Your task to perform on an android device: Go to accessibility settings Image 0: 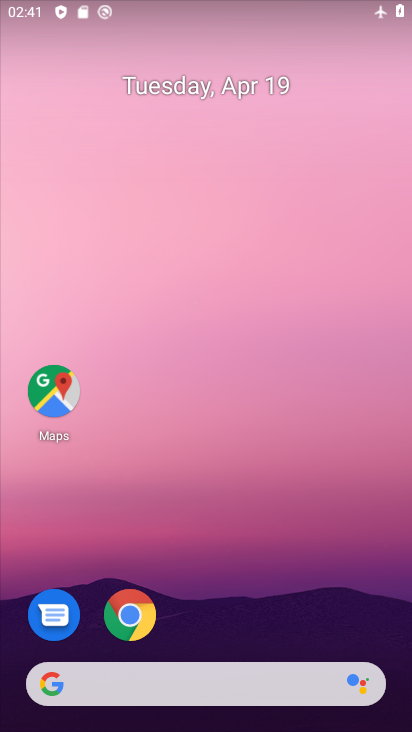
Step 0: drag from (237, 459) to (246, 235)
Your task to perform on an android device: Go to accessibility settings Image 1: 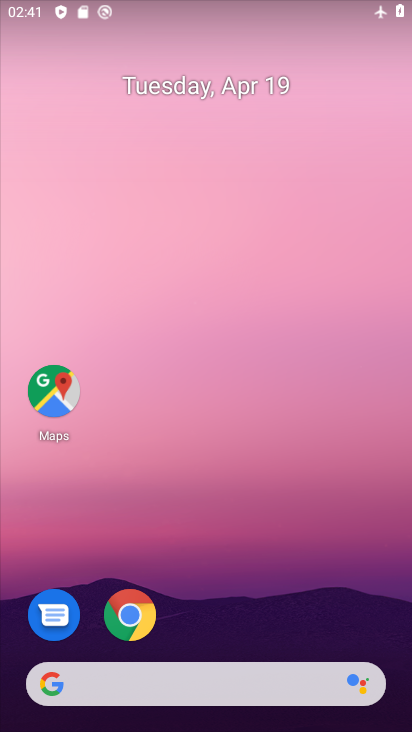
Step 1: drag from (292, 599) to (262, 245)
Your task to perform on an android device: Go to accessibility settings Image 2: 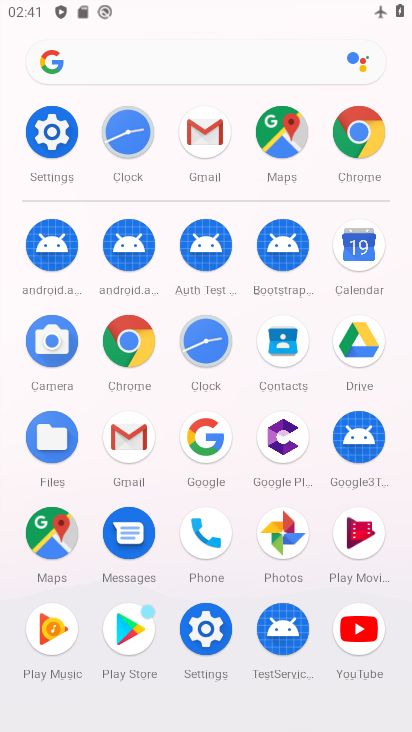
Step 2: click (58, 124)
Your task to perform on an android device: Go to accessibility settings Image 3: 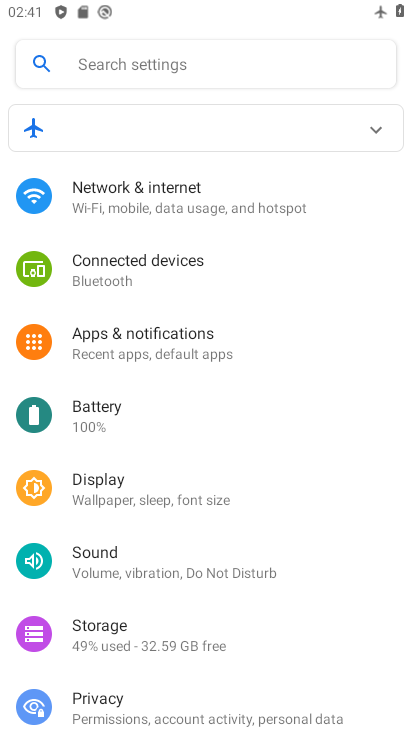
Step 3: drag from (241, 555) to (212, 121)
Your task to perform on an android device: Go to accessibility settings Image 4: 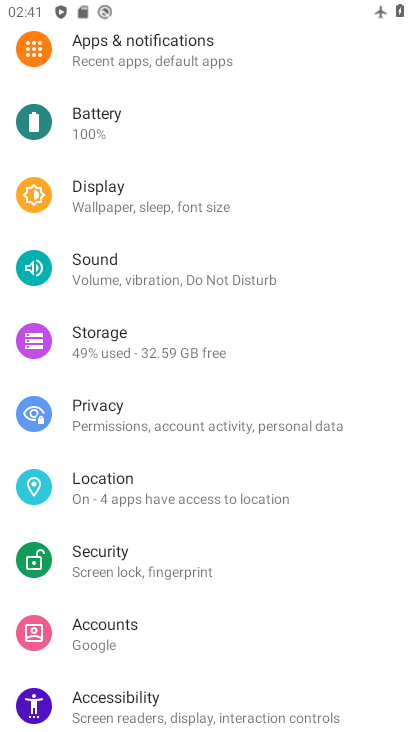
Step 4: drag from (163, 629) to (211, 250)
Your task to perform on an android device: Go to accessibility settings Image 5: 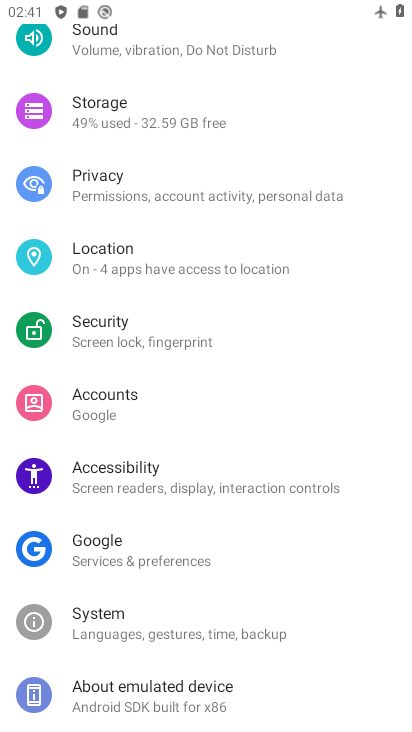
Step 5: click (193, 464)
Your task to perform on an android device: Go to accessibility settings Image 6: 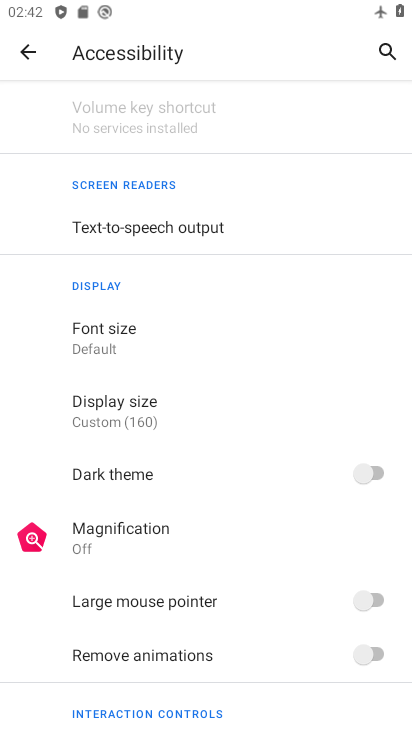
Step 6: task complete